Your task to perform on an android device: Open the calendar and show me this week's events? Image 0: 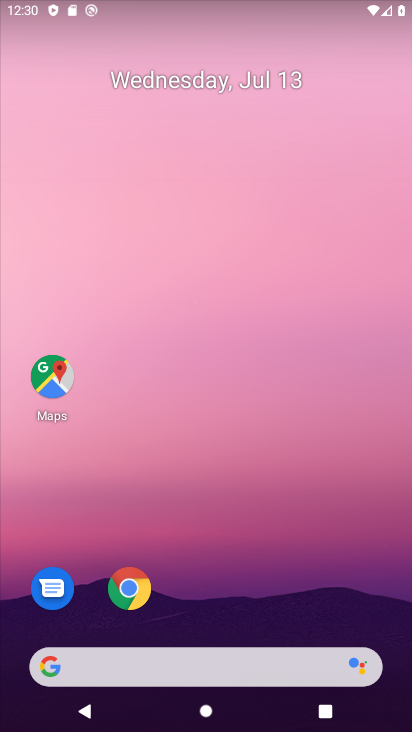
Step 0: click (238, 105)
Your task to perform on an android device: Open the calendar and show me this week's events? Image 1: 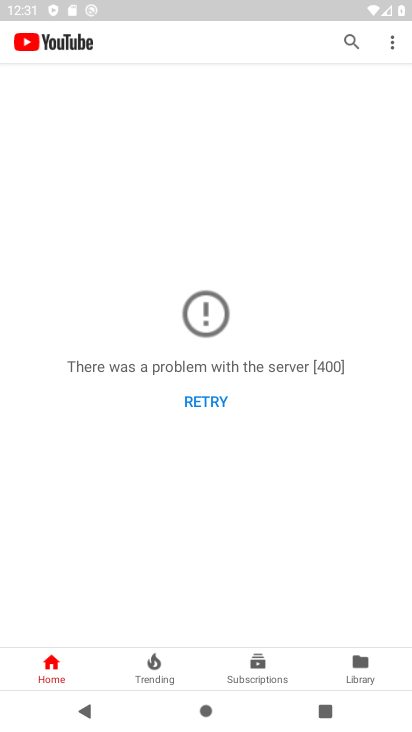
Step 1: press home button
Your task to perform on an android device: Open the calendar and show me this week's events? Image 2: 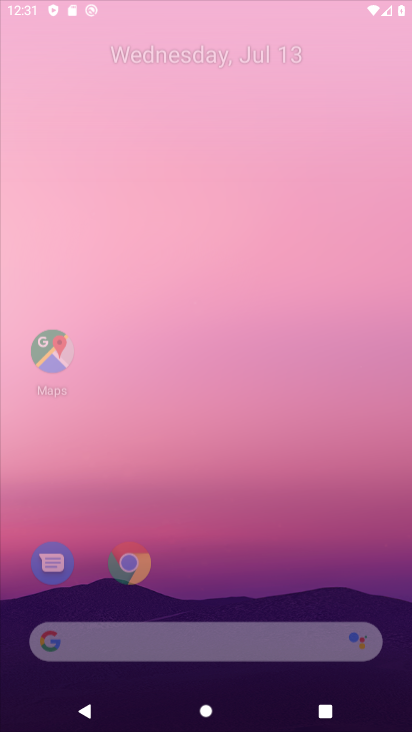
Step 2: drag from (211, 605) to (267, 76)
Your task to perform on an android device: Open the calendar and show me this week's events? Image 3: 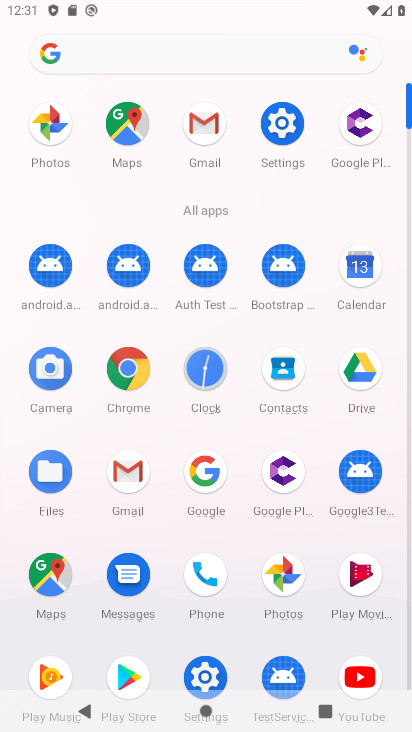
Step 3: click (357, 264)
Your task to perform on an android device: Open the calendar and show me this week's events? Image 4: 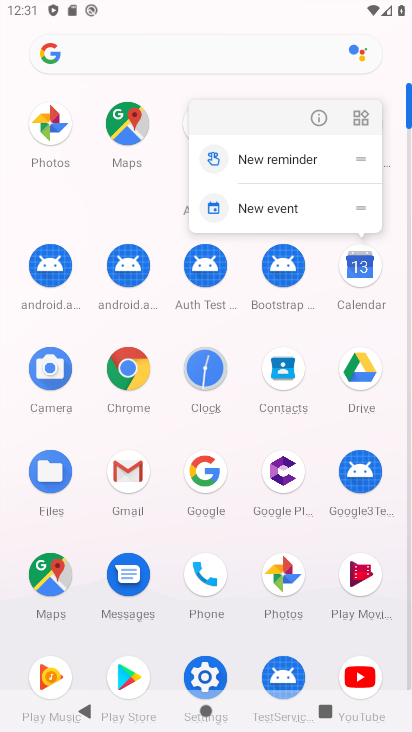
Step 4: click (318, 112)
Your task to perform on an android device: Open the calendar and show me this week's events? Image 5: 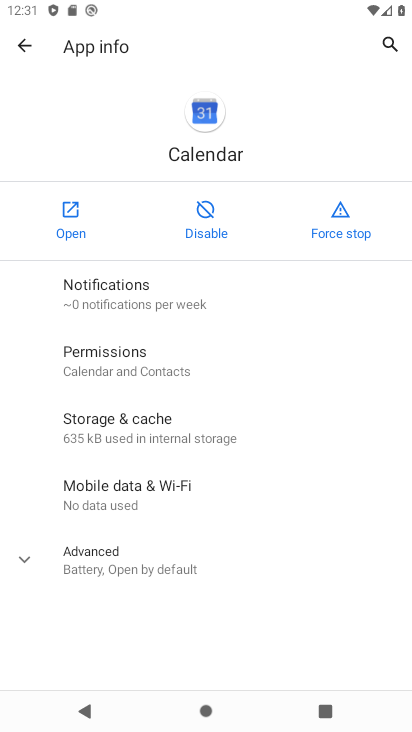
Step 5: click (71, 221)
Your task to perform on an android device: Open the calendar and show me this week's events? Image 6: 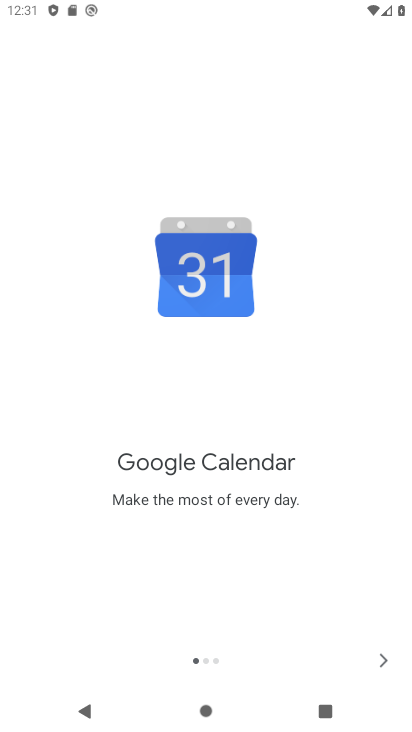
Step 6: drag from (205, 570) to (157, 354)
Your task to perform on an android device: Open the calendar and show me this week's events? Image 7: 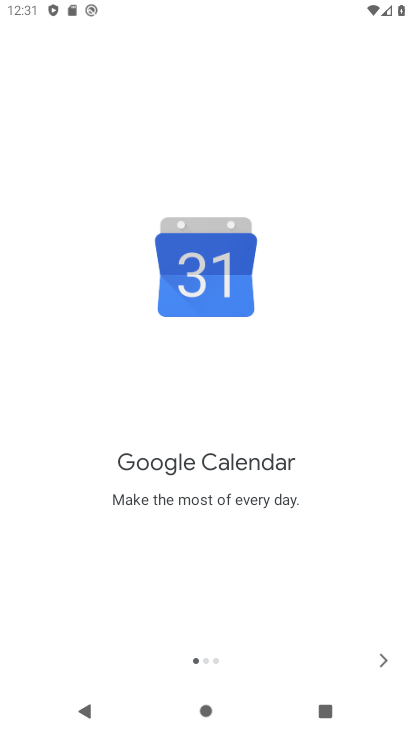
Step 7: click (380, 657)
Your task to perform on an android device: Open the calendar and show me this week's events? Image 8: 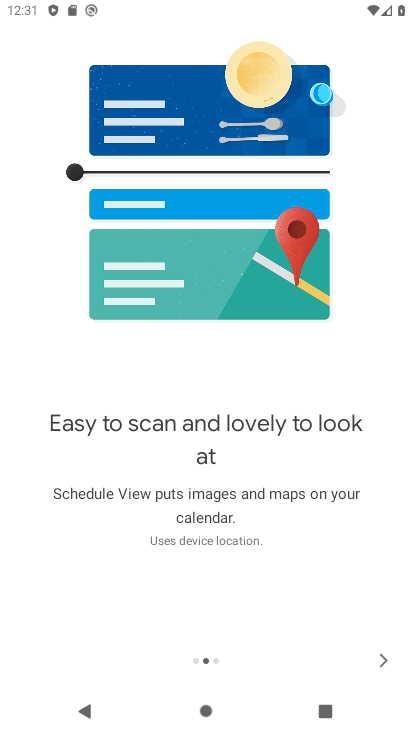
Step 8: click (383, 658)
Your task to perform on an android device: Open the calendar and show me this week's events? Image 9: 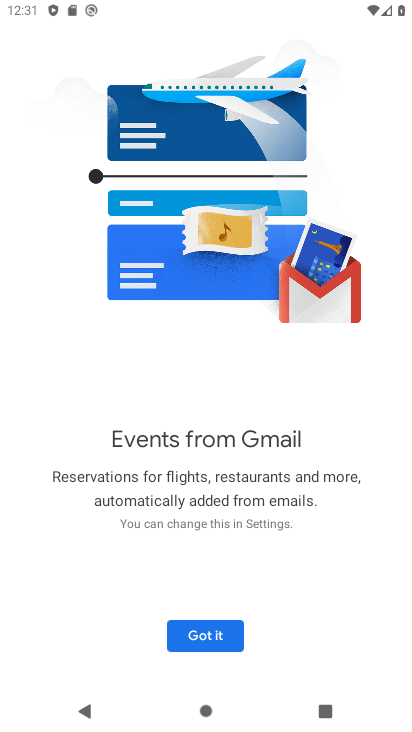
Step 9: click (194, 631)
Your task to perform on an android device: Open the calendar and show me this week's events? Image 10: 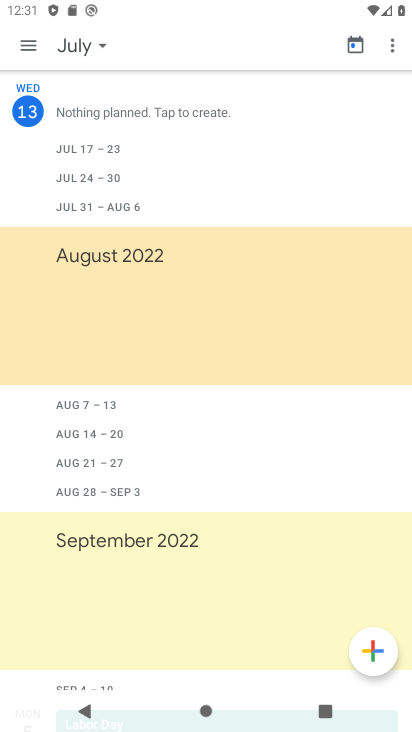
Step 10: click (85, 44)
Your task to perform on an android device: Open the calendar and show me this week's events? Image 11: 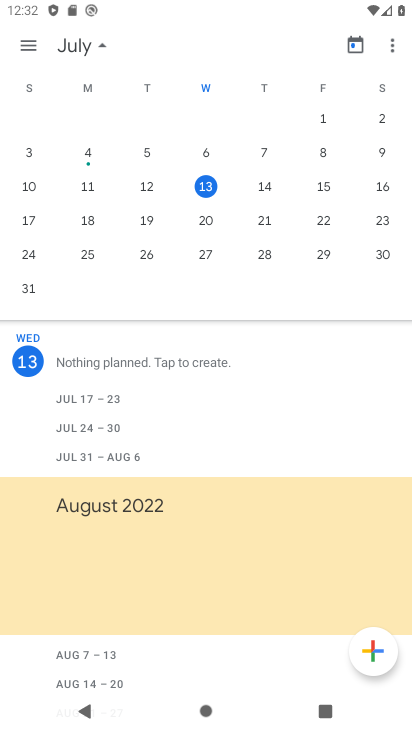
Step 11: drag from (187, 439) to (192, 258)
Your task to perform on an android device: Open the calendar and show me this week's events? Image 12: 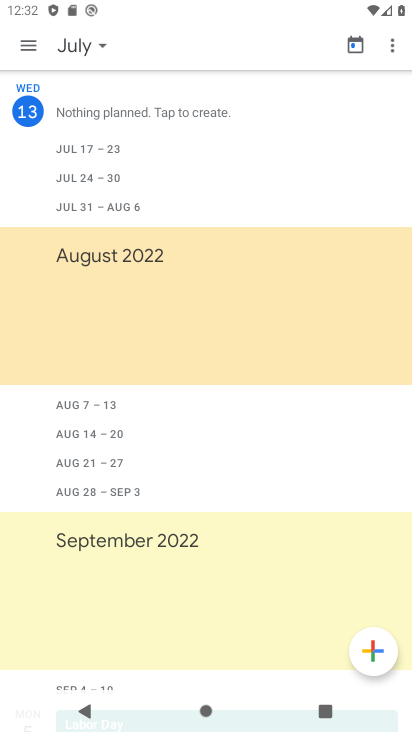
Step 12: drag from (222, 597) to (225, 332)
Your task to perform on an android device: Open the calendar and show me this week's events? Image 13: 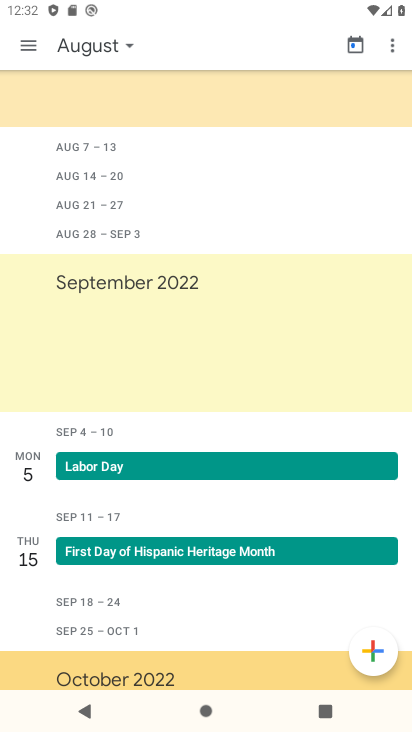
Step 13: drag from (228, 299) to (233, 661)
Your task to perform on an android device: Open the calendar and show me this week's events? Image 14: 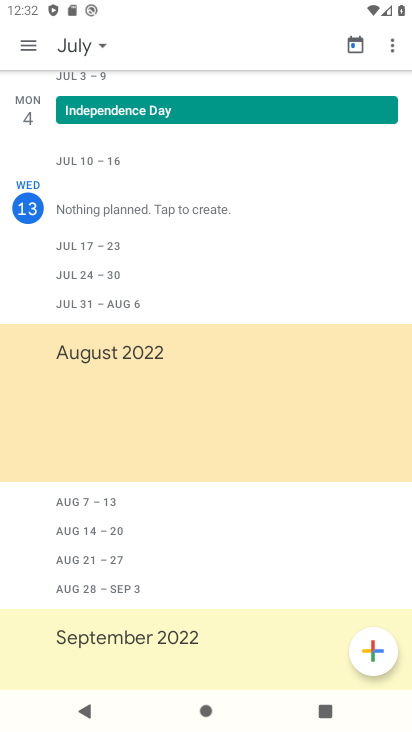
Step 14: drag from (168, 269) to (258, 723)
Your task to perform on an android device: Open the calendar and show me this week's events? Image 15: 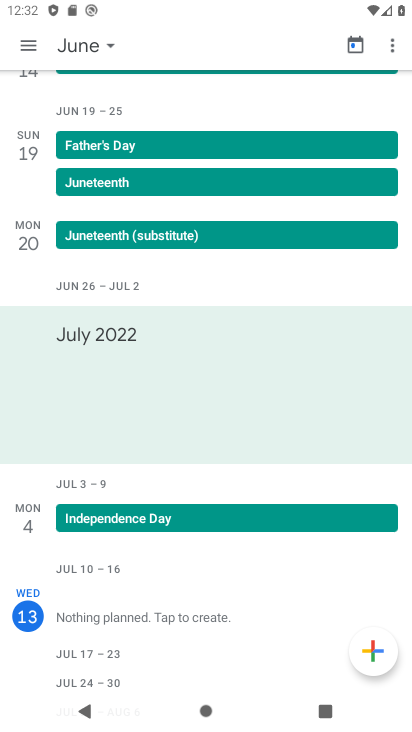
Step 15: click (85, 41)
Your task to perform on an android device: Open the calendar and show me this week's events? Image 16: 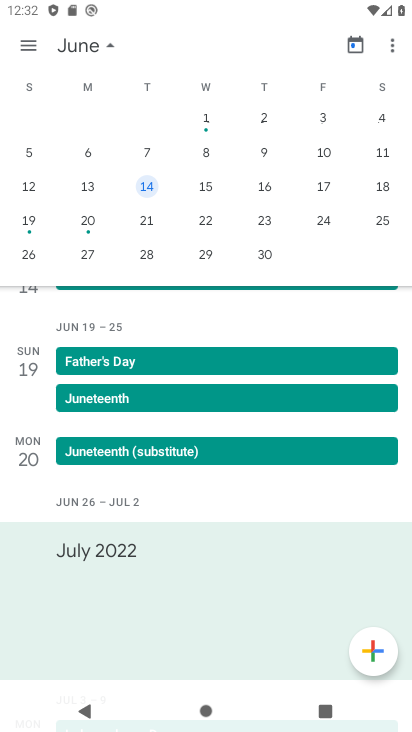
Step 16: click (386, 188)
Your task to perform on an android device: Open the calendar and show me this week's events? Image 17: 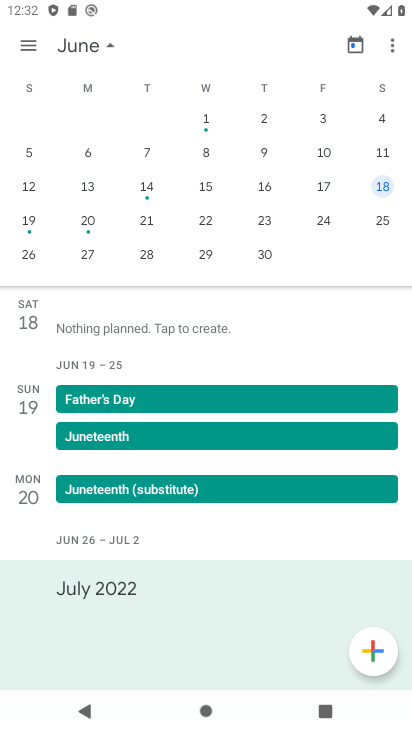
Step 17: task complete